Your task to perform on an android device: Search for pizza restaurants on Maps Image 0: 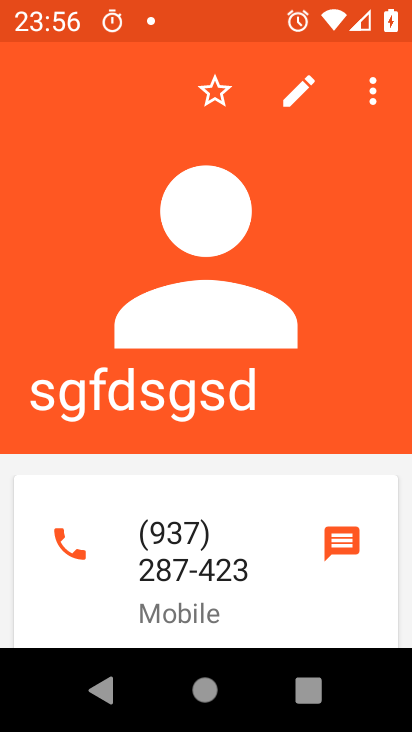
Step 0: press home button
Your task to perform on an android device: Search for pizza restaurants on Maps Image 1: 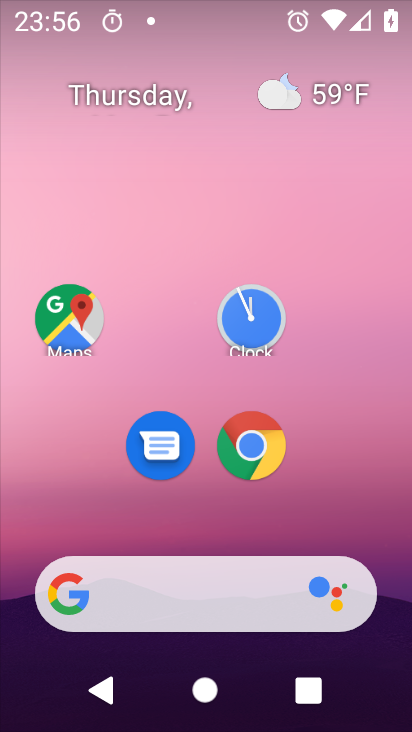
Step 1: click (72, 328)
Your task to perform on an android device: Search for pizza restaurants on Maps Image 2: 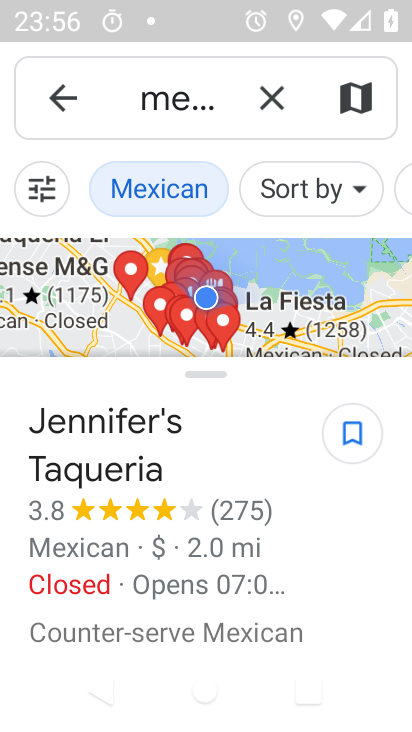
Step 2: click (271, 104)
Your task to perform on an android device: Search for pizza restaurants on Maps Image 3: 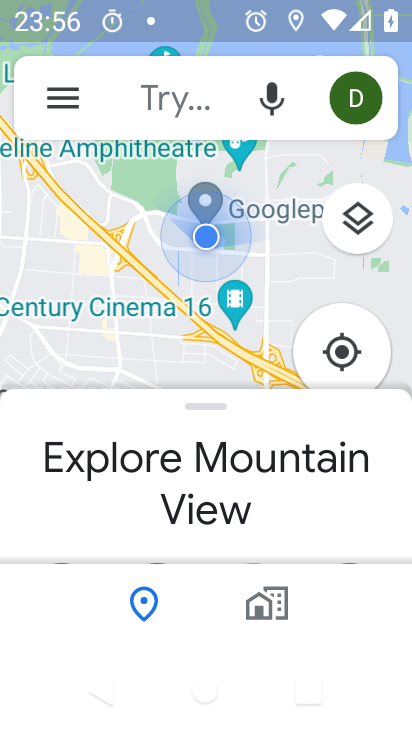
Step 3: click (193, 119)
Your task to perform on an android device: Search for pizza restaurants on Maps Image 4: 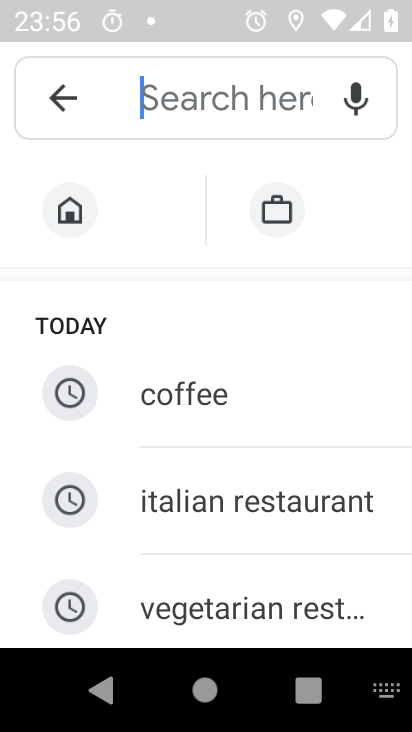
Step 4: type "pizza restaurants"
Your task to perform on an android device: Search for pizza restaurants on Maps Image 5: 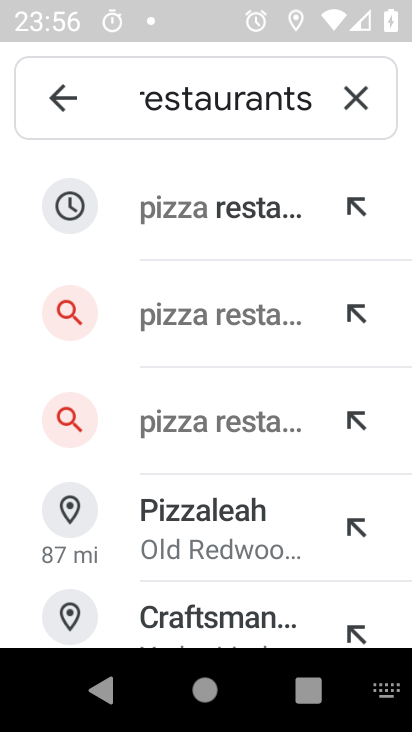
Step 5: click (197, 237)
Your task to perform on an android device: Search for pizza restaurants on Maps Image 6: 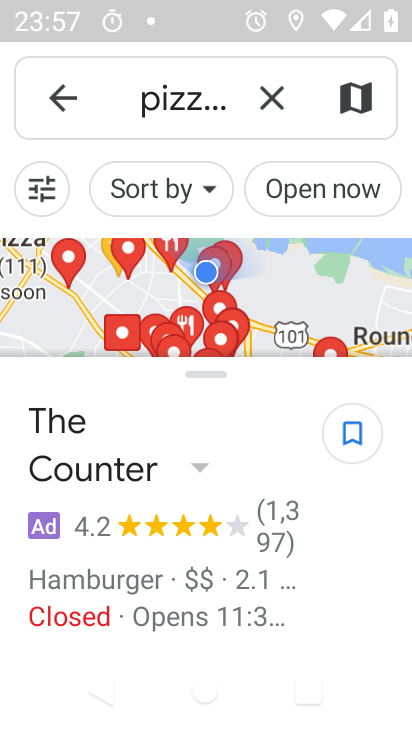
Step 6: task complete